Your task to perform on an android device: Go to network settings Image 0: 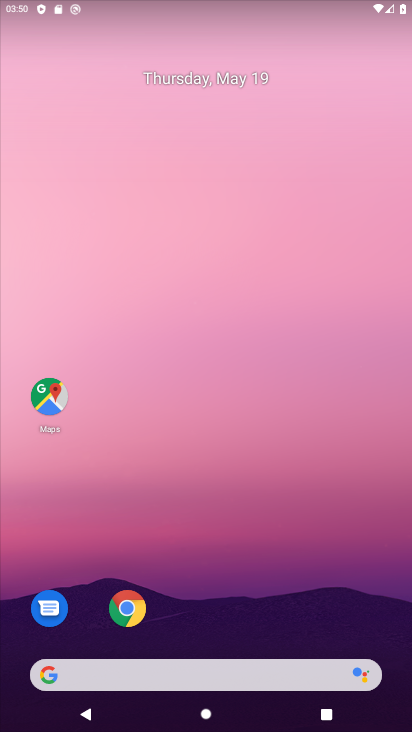
Step 0: drag from (245, 577) to (242, 99)
Your task to perform on an android device: Go to network settings Image 1: 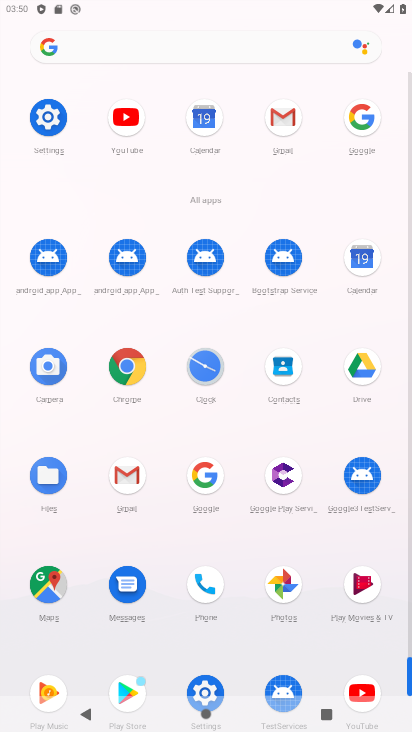
Step 1: click (47, 112)
Your task to perform on an android device: Go to network settings Image 2: 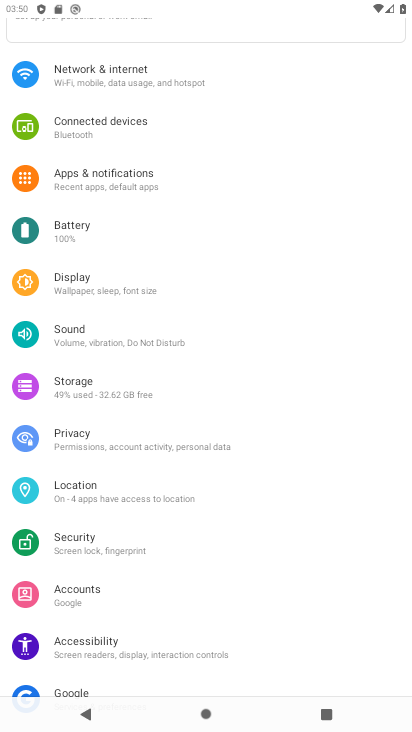
Step 2: click (132, 81)
Your task to perform on an android device: Go to network settings Image 3: 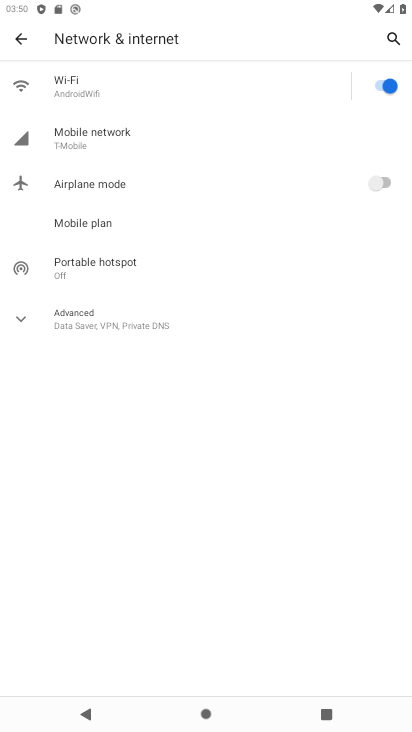
Step 3: click (94, 127)
Your task to perform on an android device: Go to network settings Image 4: 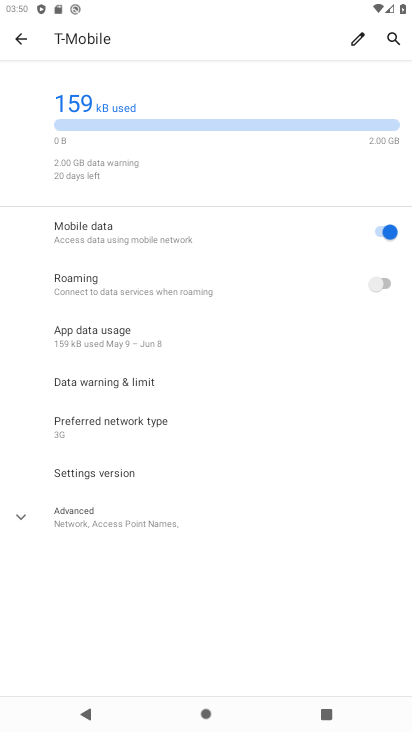
Step 4: task complete